Your task to perform on an android device: Search for hotels in London Image 0: 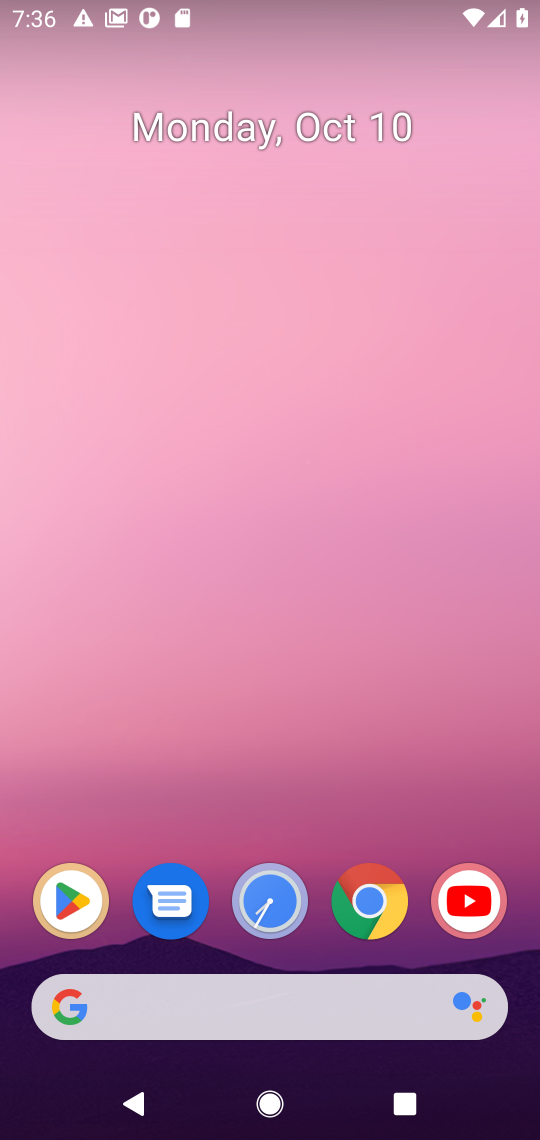
Step 0: click (329, 1065)
Your task to perform on an android device: Search for hotels in London Image 1: 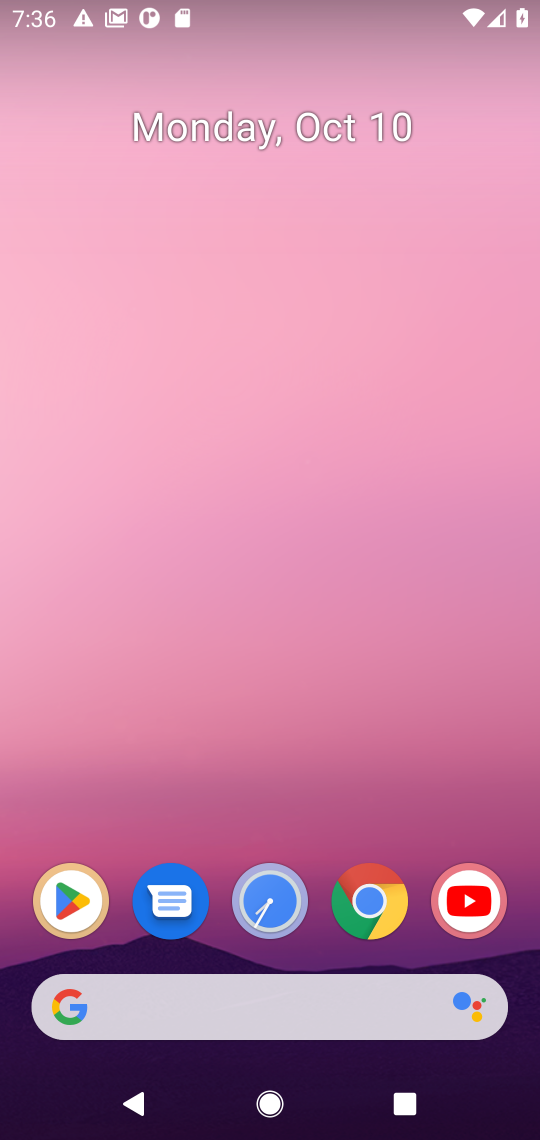
Step 1: click (329, 1019)
Your task to perform on an android device: Search for hotels in London Image 2: 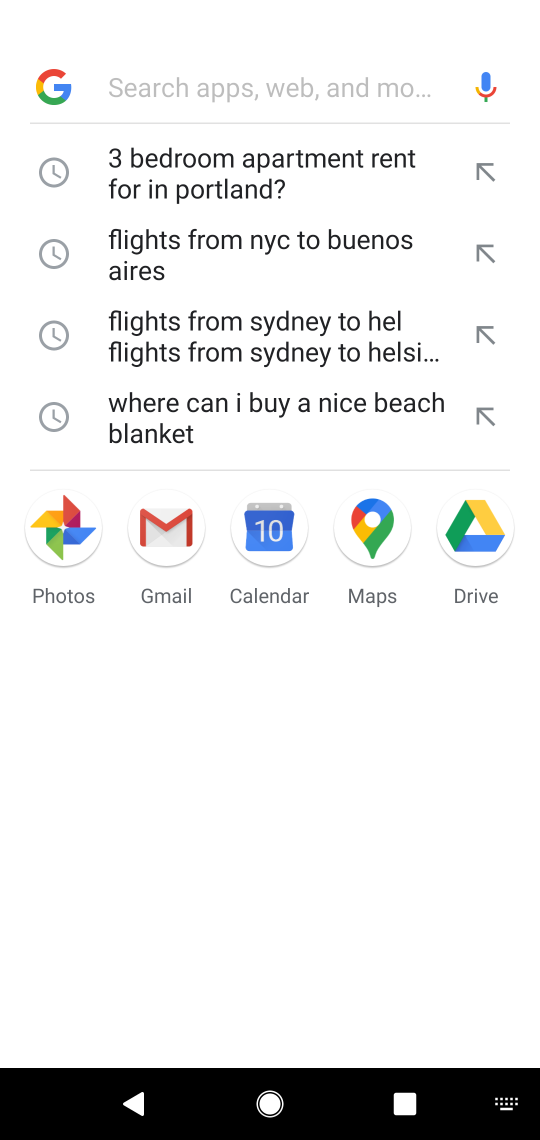
Step 2: type "hotels in London"
Your task to perform on an android device: Search for hotels in London Image 3: 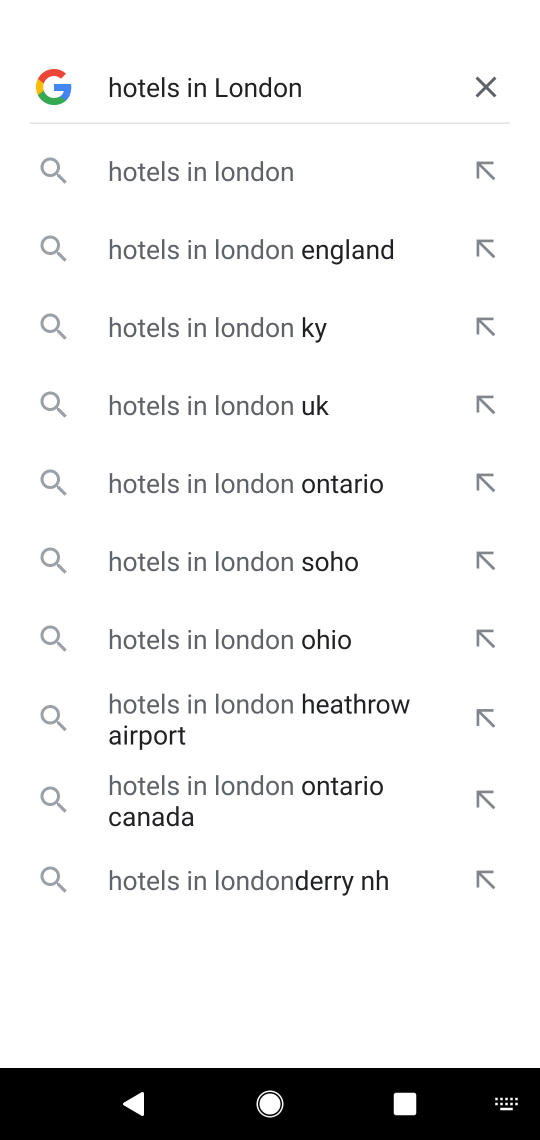
Step 3: press enter
Your task to perform on an android device: Search for hotels in London Image 4: 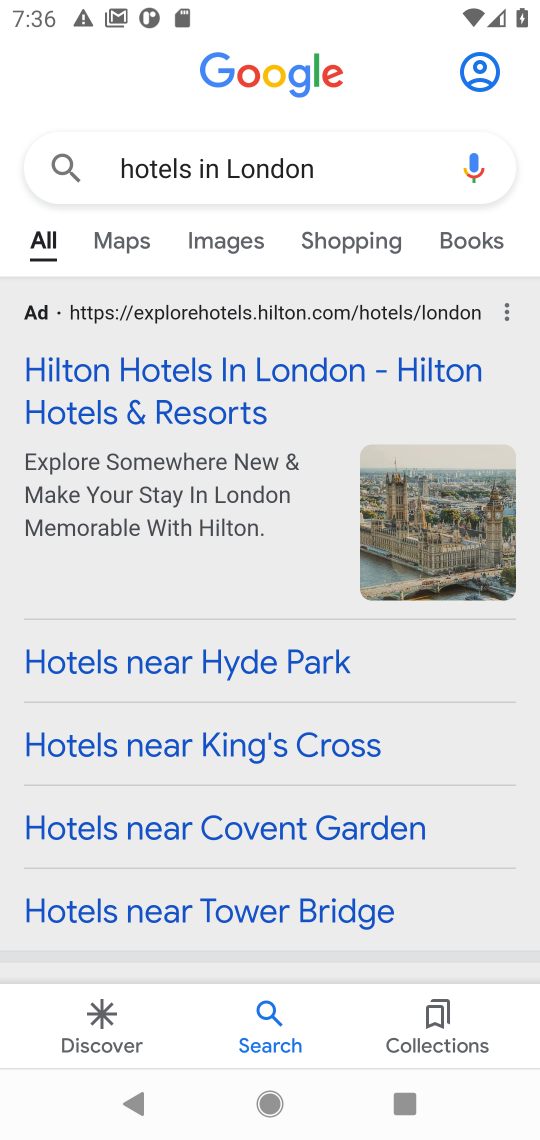
Step 4: drag from (454, 910) to (388, 428)
Your task to perform on an android device: Search for hotels in London Image 5: 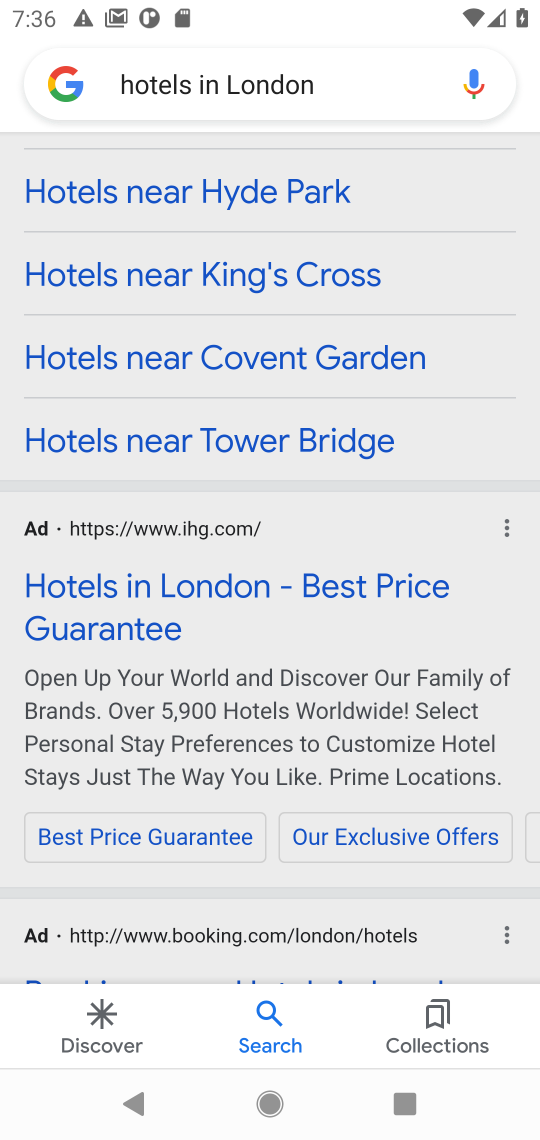
Step 5: drag from (16, 855) to (11, 441)
Your task to perform on an android device: Search for hotels in London Image 6: 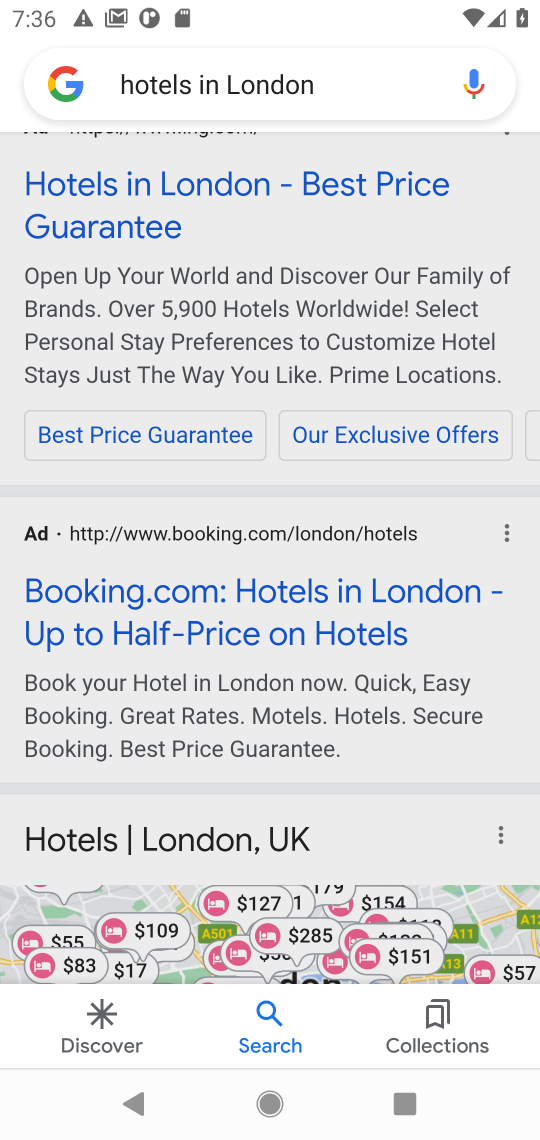
Step 6: drag from (21, 812) to (27, 458)
Your task to perform on an android device: Search for hotels in London Image 7: 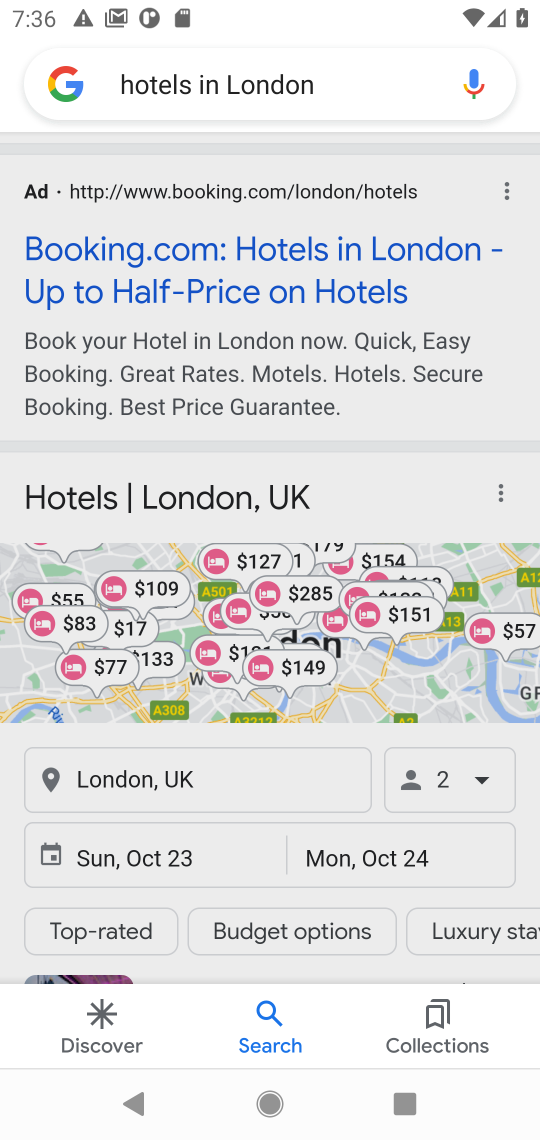
Step 7: drag from (21, 814) to (23, 722)
Your task to perform on an android device: Search for hotels in London Image 8: 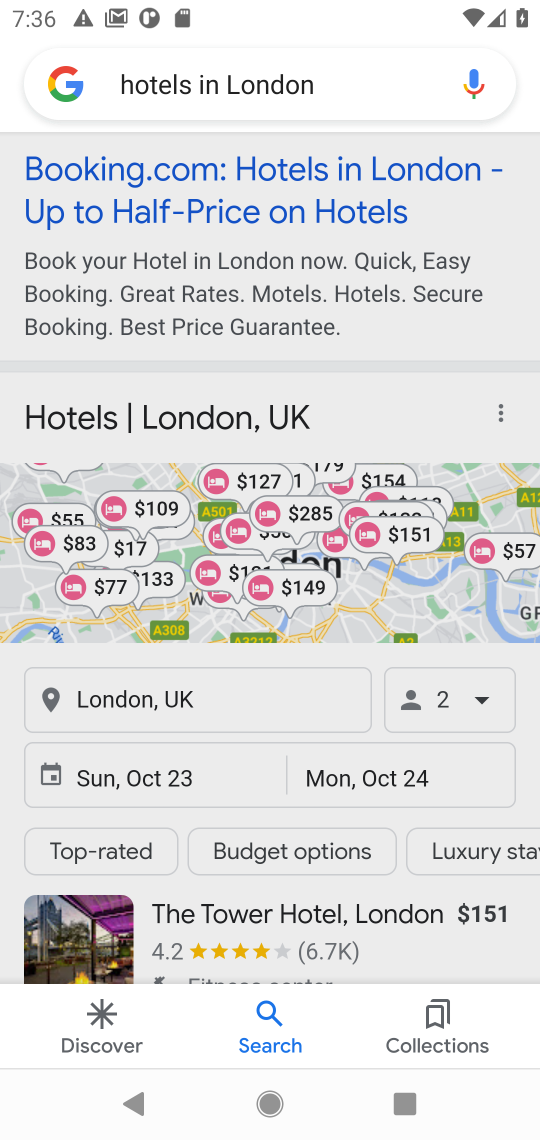
Step 8: drag from (13, 845) to (9, 566)
Your task to perform on an android device: Search for hotels in London Image 9: 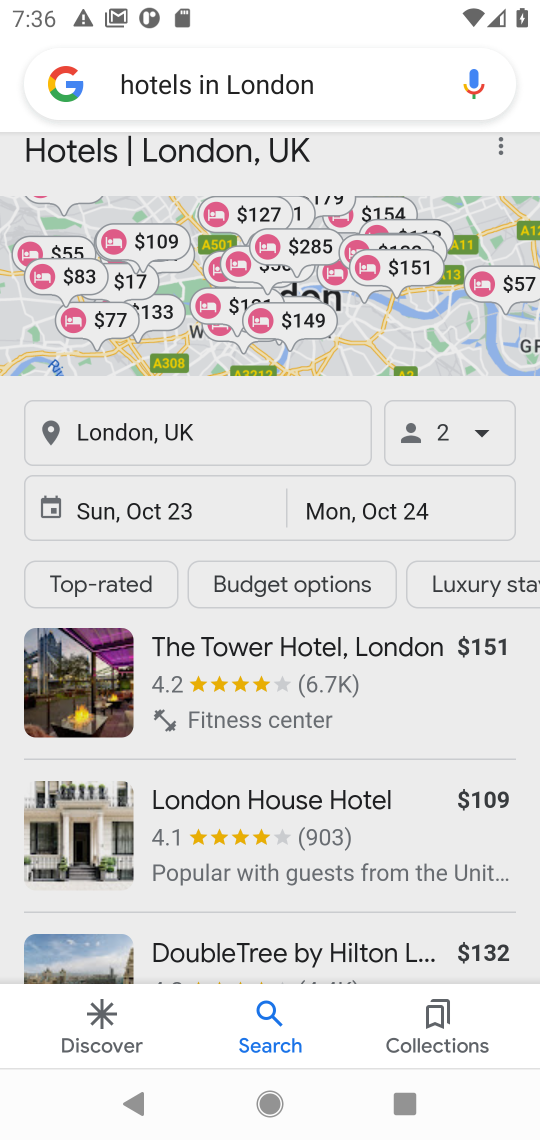
Step 9: drag from (26, 906) to (32, 732)
Your task to perform on an android device: Search for hotels in London Image 10: 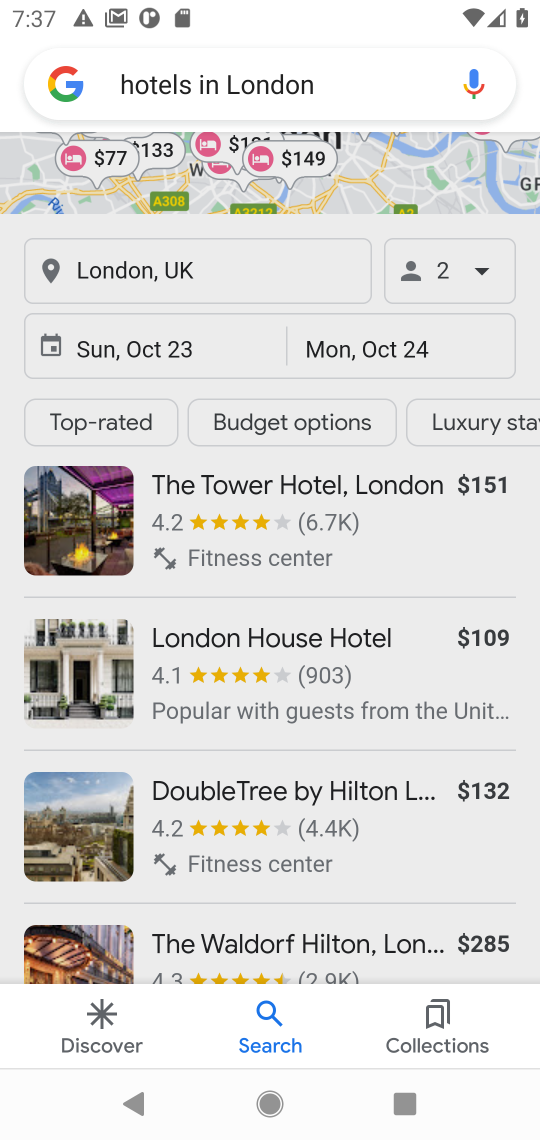
Step 10: drag from (11, 752) to (11, 540)
Your task to perform on an android device: Search for hotels in London Image 11: 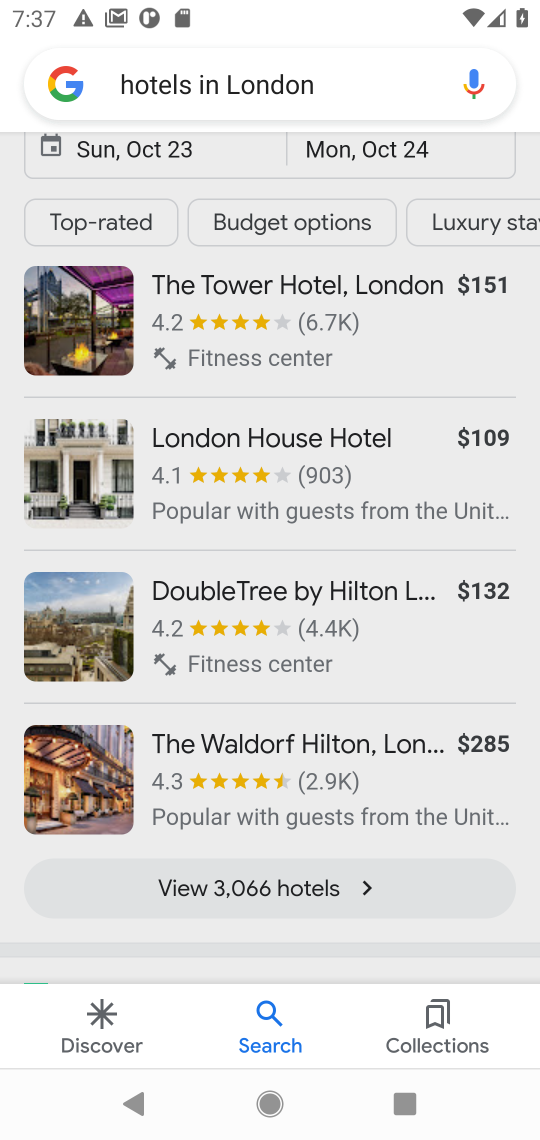
Step 11: drag from (19, 553) to (8, 393)
Your task to perform on an android device: Search for hotels in London Image 12: 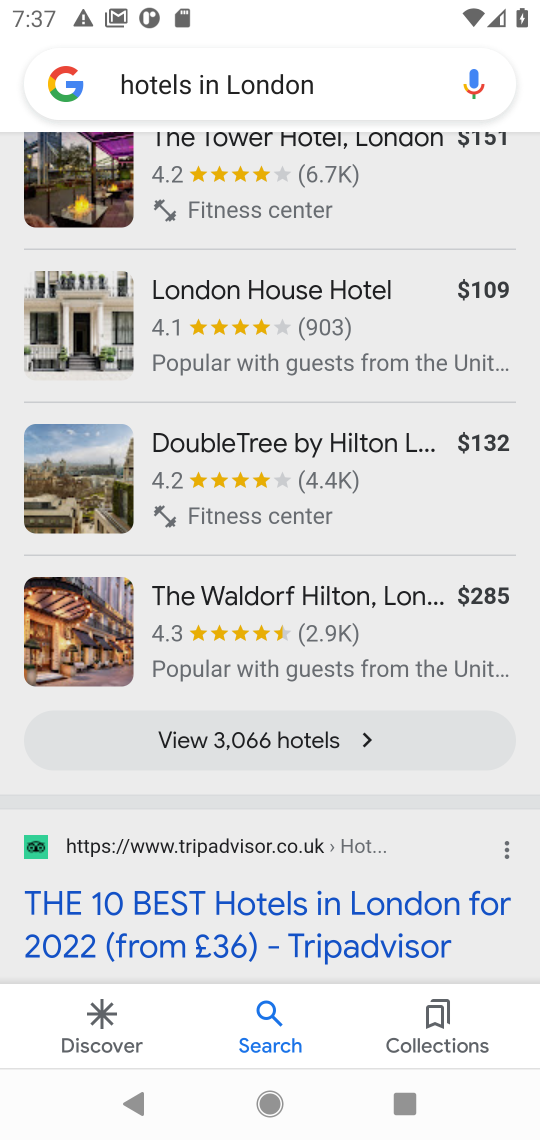
Step 12: click (299, 733)
Your task to perform on an android device: Search for hotels in London Image 13: 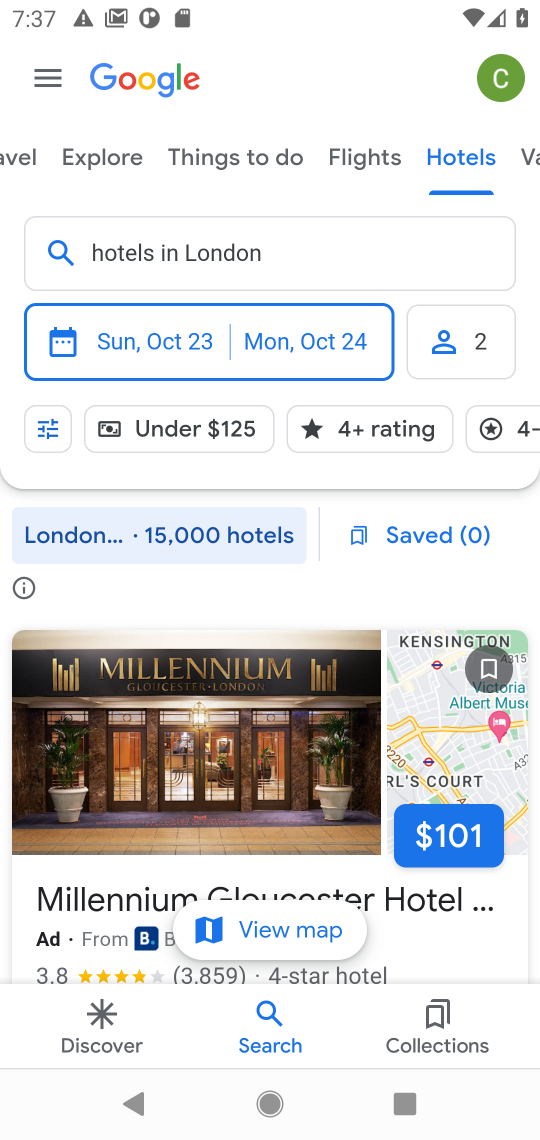
Step 13: drag from (9, 573) to (9, 193)
Your task to perform on an android device: Search for hotels in London Image 14: 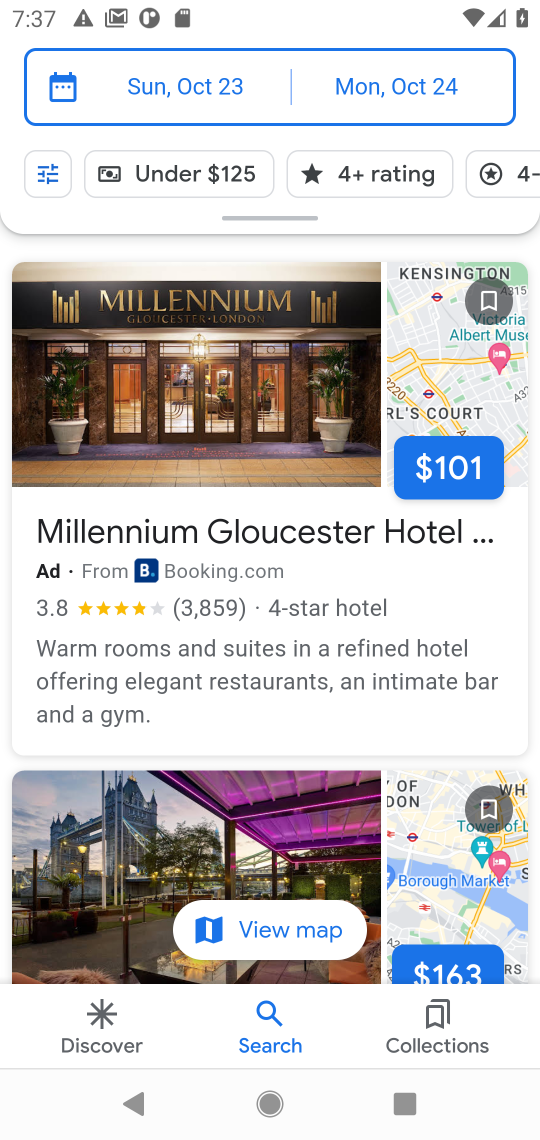
Step 14: drag from (23, 659) to (38, 308)
Your task to perform on an android device: Search for hotels in London Image 15: 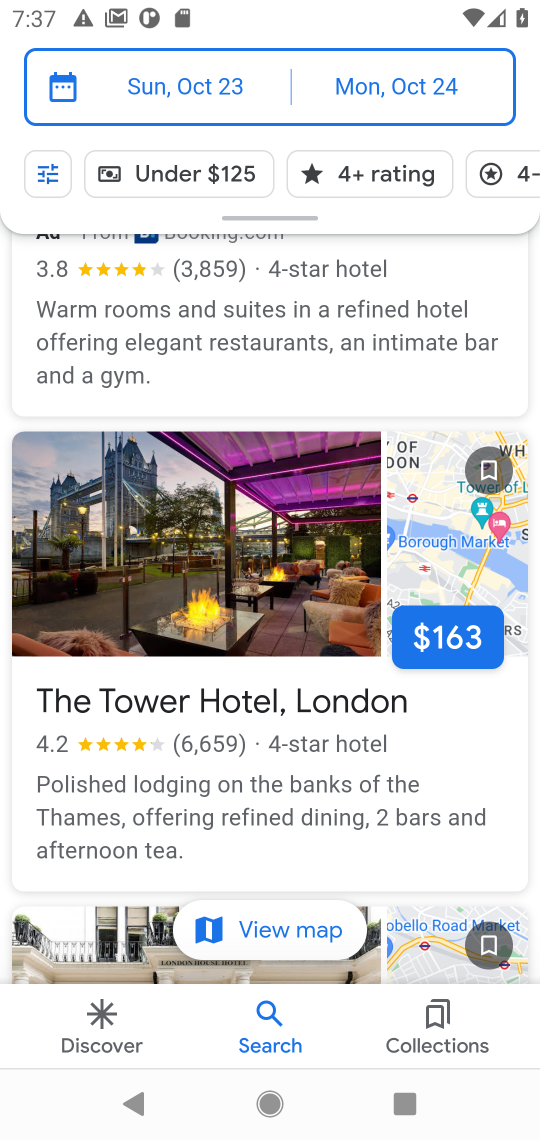
Step 15: drag from (10, 444) to (10, 270)
Your task to perform on an android device: Search for hotels in London Image 16: 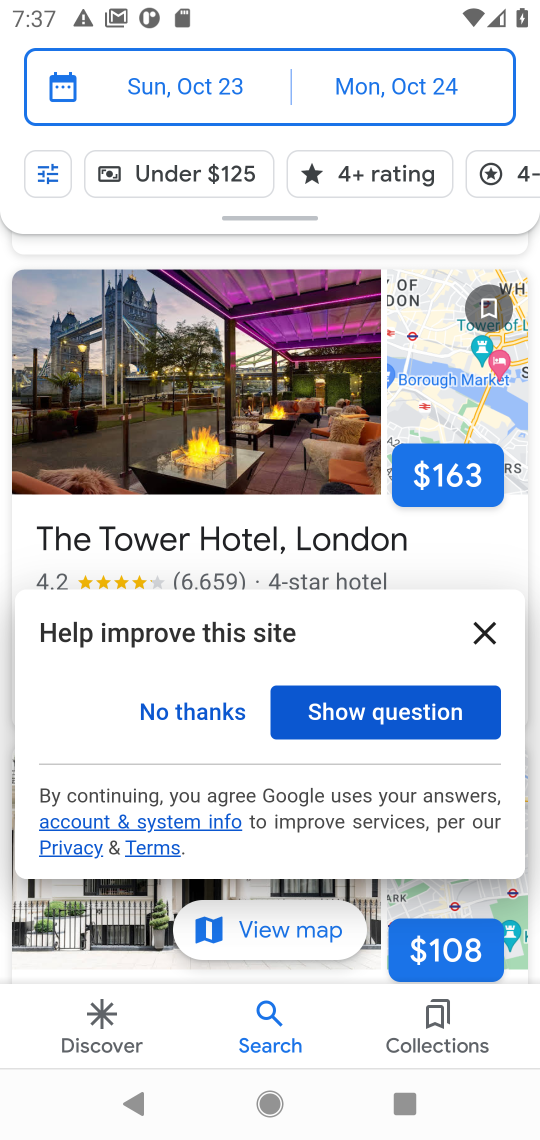
Step 16: click (216, 705)
Your task to perform on an android device: Search for hotels in London Image 17: 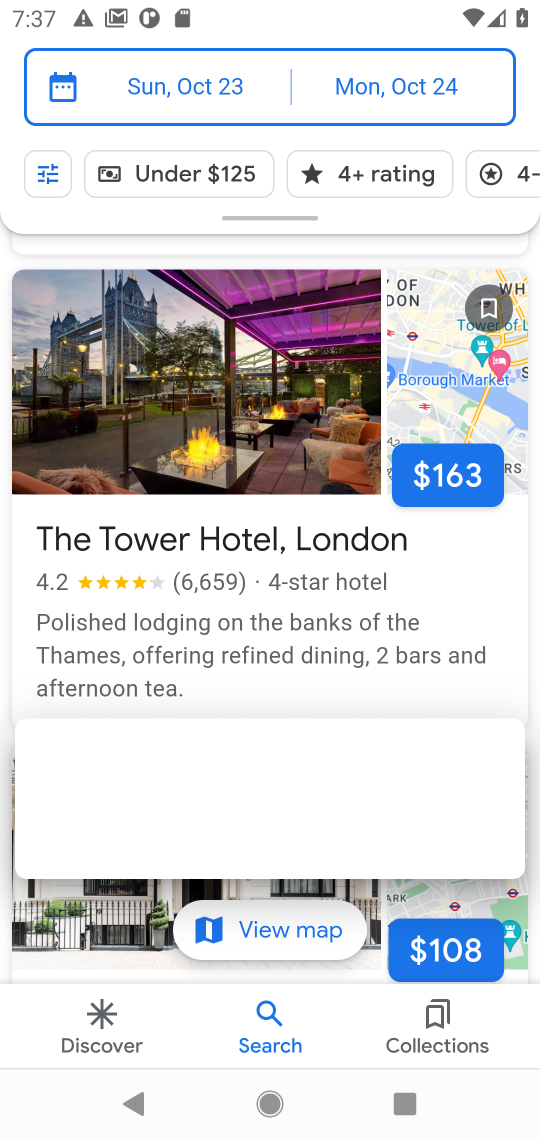
Step 17: task complete